Your task to perform on an android device: change alarm snooze length Image 0: 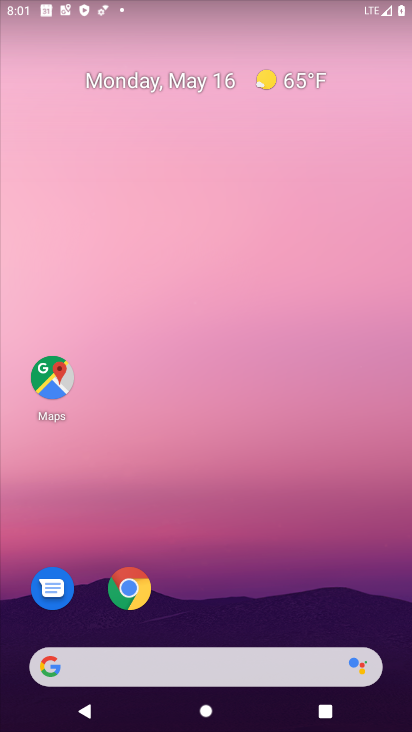
Step 0: drag from (211, 491) to (187, 33)
Your task to perform on an android device: change alarm snooze length Image 1: 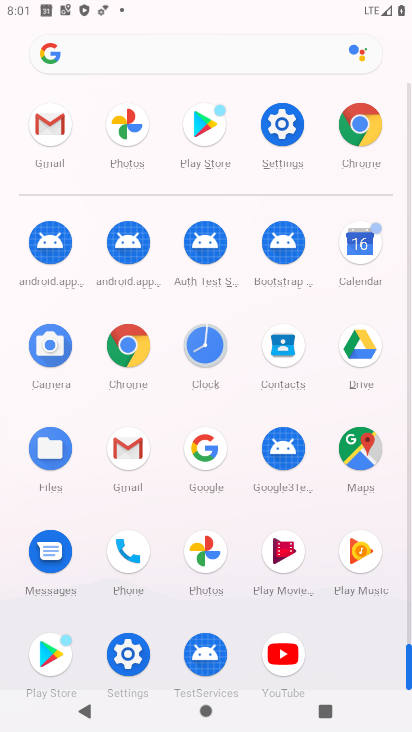
Step 1: drag from (10, 432) to (11, 153)
Your task to perform on an android device: change alarm snooze length Image 2: 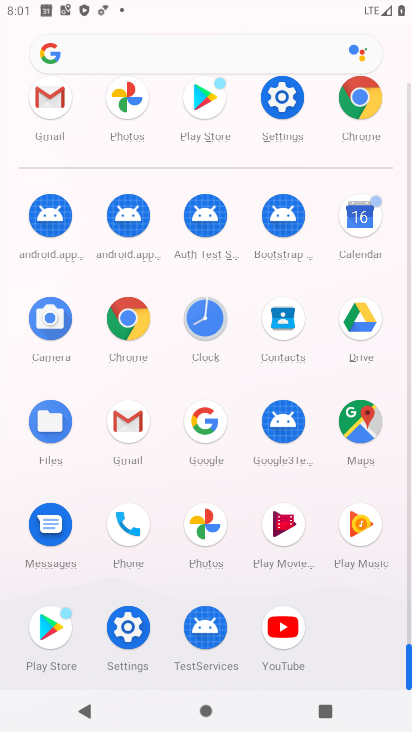
Step 2: click (204, 319)
Your task to perform on an android device: change alarm snooze length Image 3: 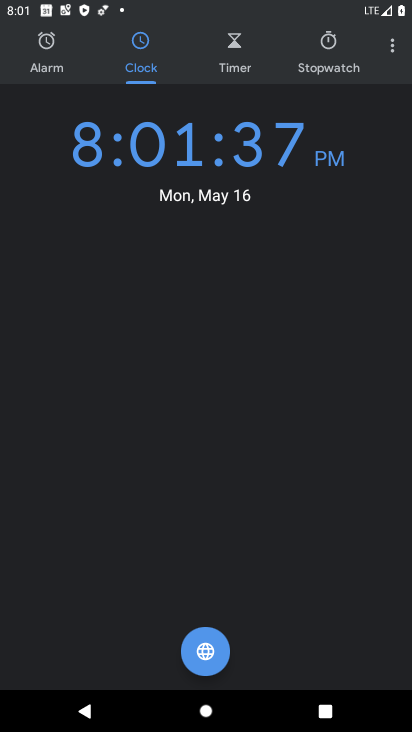
Step 3: click (39, 57)
Your task to perform on an android device: change alarm snooze length Image 4: 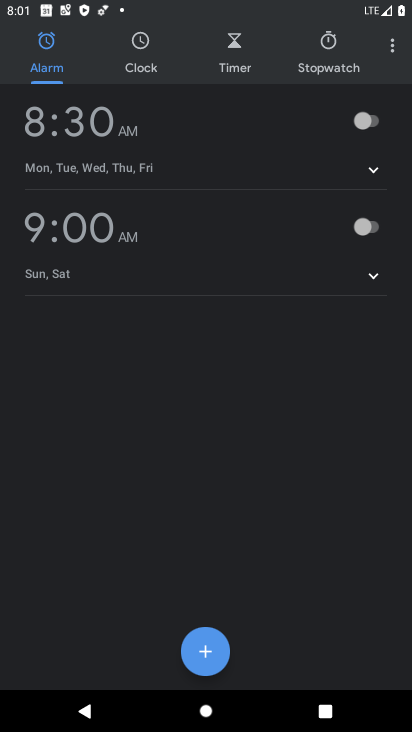
Step 4: drag from (390, 38) to (305, 89)
Your task to perform on an android device: change alarm snooze length Image 5: 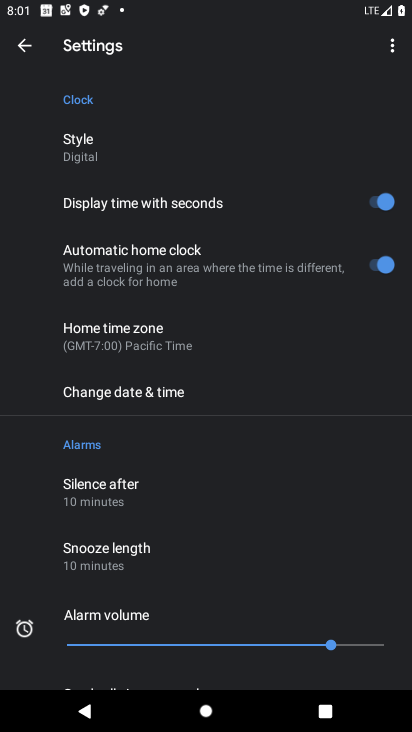
Step 5: click (163, 549)
Your task to perform on an android device: change alarm snooze length Image 6: 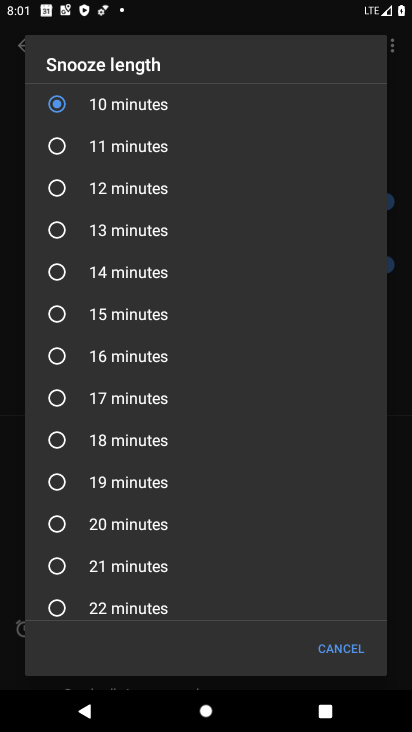
Step 6: click (123, 146)
Your task to perform on an android device: change alarm snooze length Image 7: 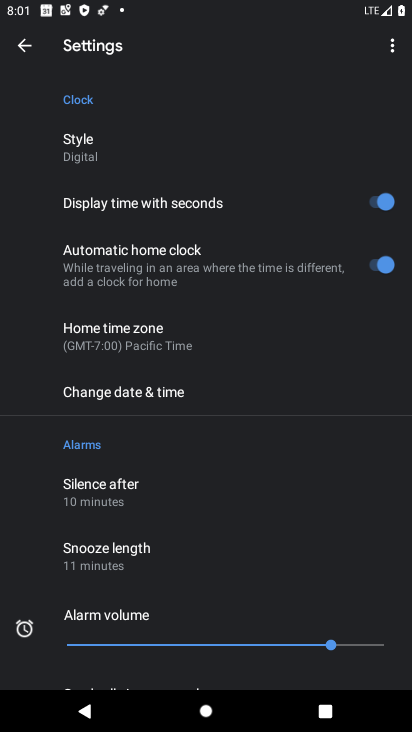
Step 7: task complete